Your task to perform on an android device: open sync settings in chrome Image 0: 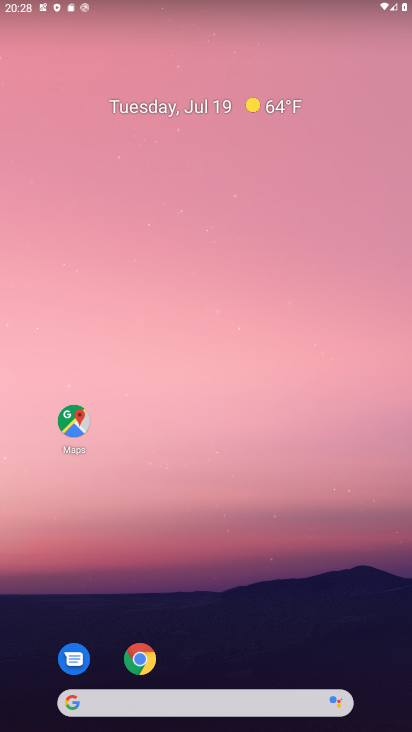
Step 0: click (148, 668)
Your task to perform on an android device: open sync settings in chrome Image 1: 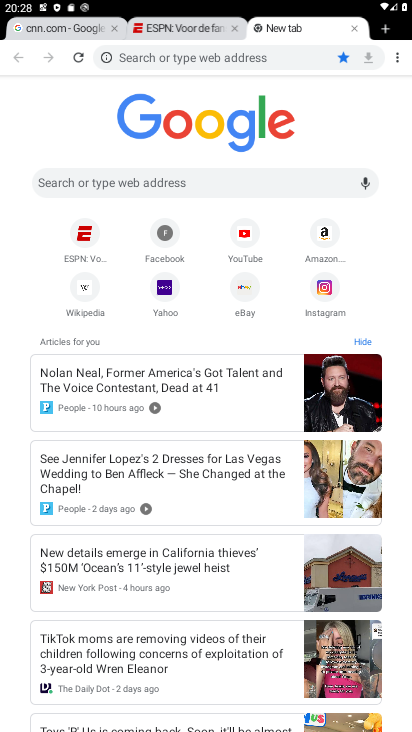
Step 1: click (390, 73)
Your task to perform on an android device: open sync settings in chrome Image 2: 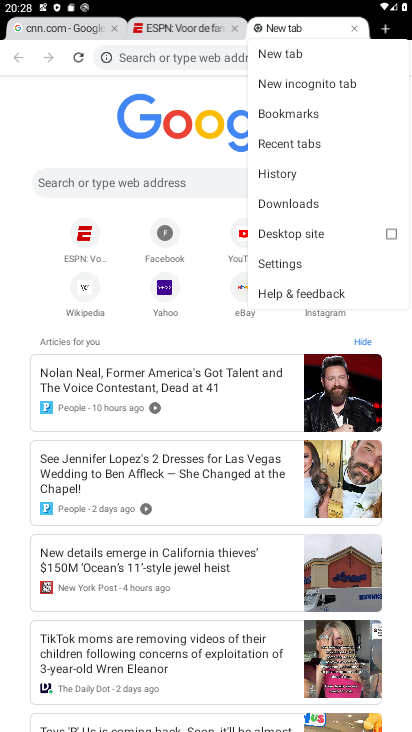
Step 2: click (273, 264)
Your task to perform on an android device: open sync settings in chrome Image 3: 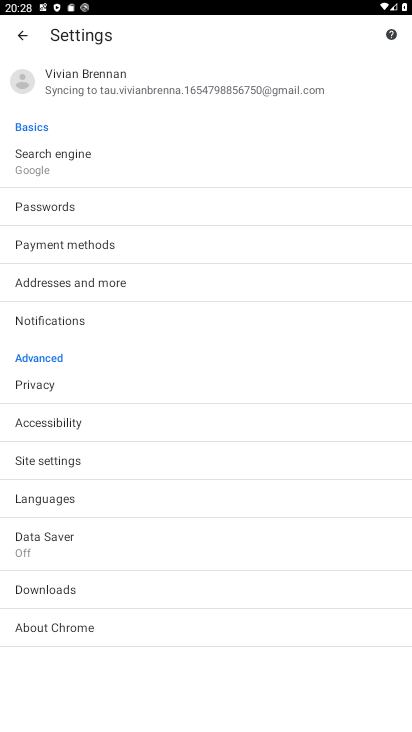
Step 3: click (140, 90)
Your task to perform on an android device: open sync settings in chrome Image 4: 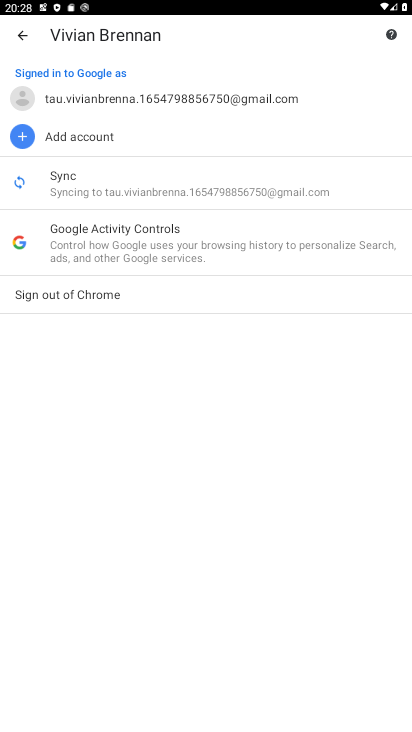
Step 4: click (123, 175)
Your task to perform on an android device: open sync settings in chrome Image 5: 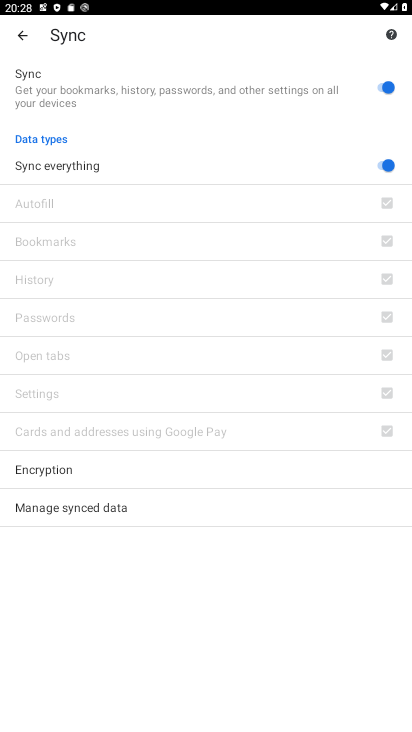
Step 5: task complete